Your task to perform on an android device: change keyboard looks Image 0: 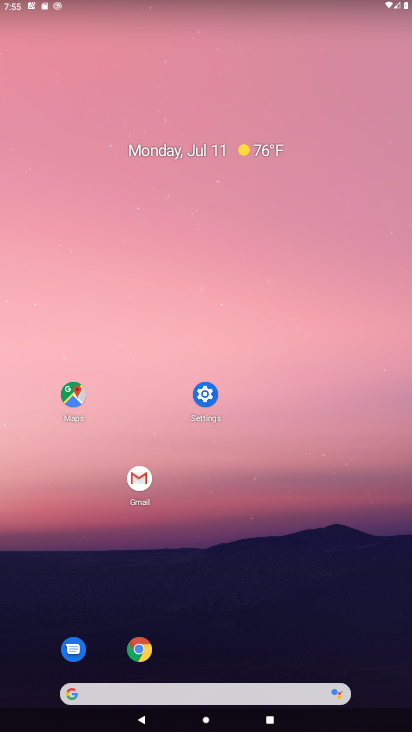
Step 0: click (207, 389)
Your task to perform on an android device: change keyboard looks Image 1: 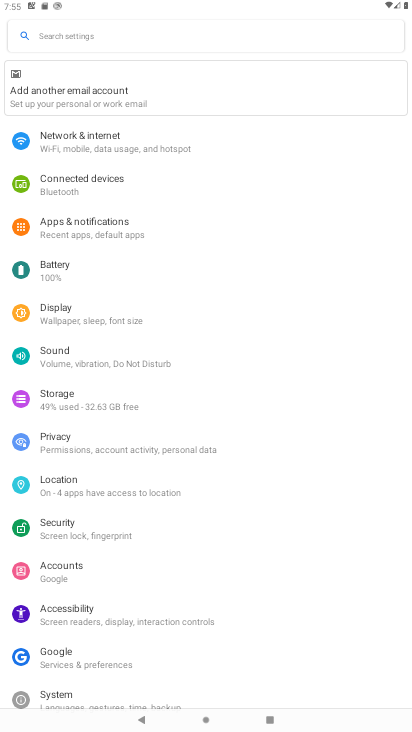
Step 1: click (63, 692)
Your task to perform on an android device: change keyboard looks Image 2: 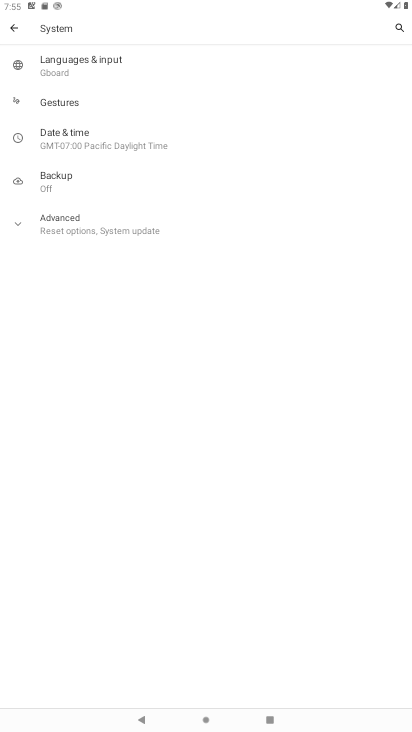
Step 2: click (52, 55)
Your task to perform on an android device: change keyboard looks Image 3: 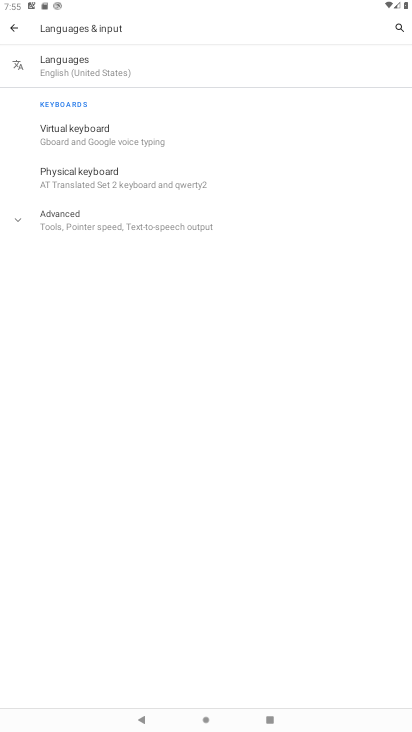
Step 3: click (64, 133)
Your task to perform on an android device: change keyboard looks Image 4: 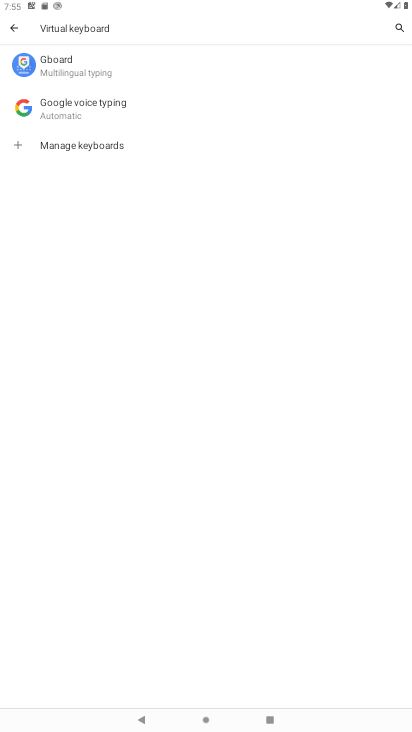
Step 4: click (71, 61)
Your task to perform on an android device: change keyboard looks Image 5: 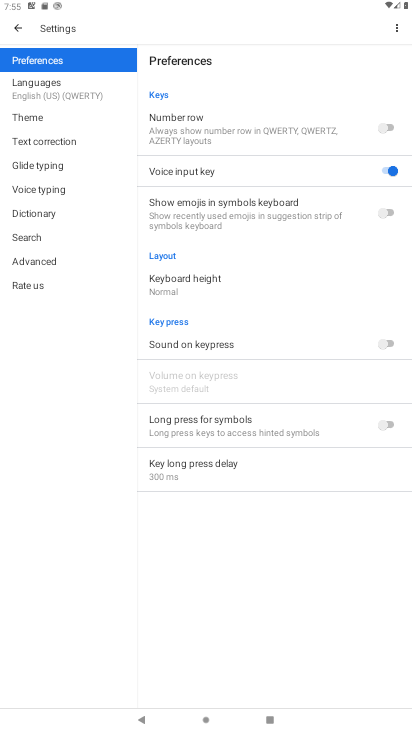
Step 5: click (28, 113)
Your task to perform on an android device: change keyboard looks Image 6: 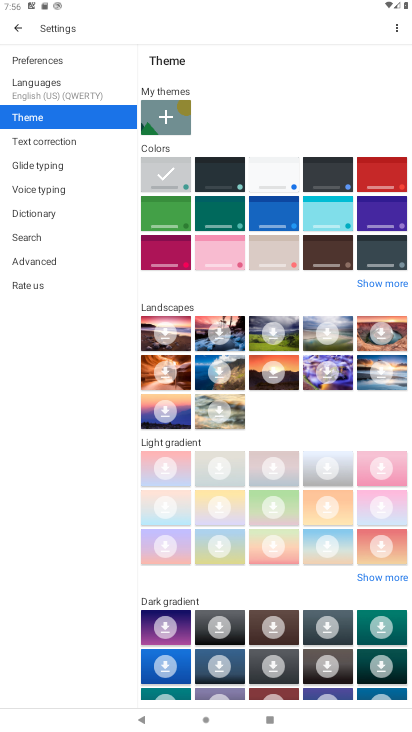
Step 6: click (187, 214)
Your task to perform on an android device: change keyboard looks Image 7: 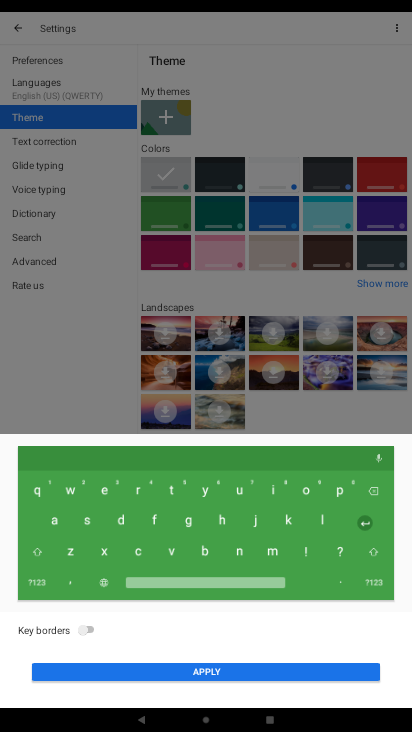
Step 7: click (246, 674)
Your task to perform on an android device: change keyboard looks Image 8: 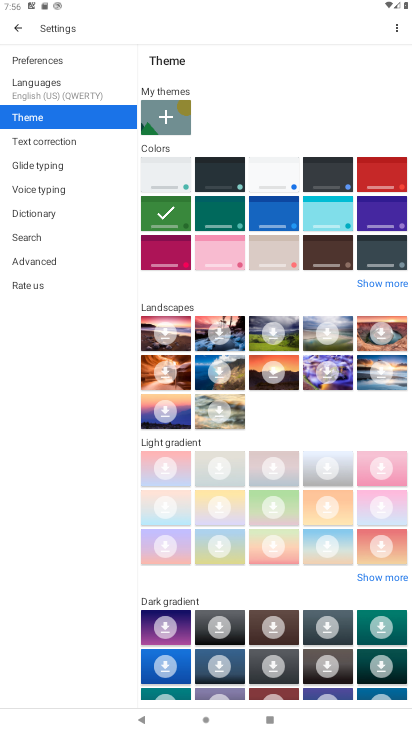
Step 8: task complete